Your task to perform on an android device: Find coffee shops on Maps Image 0: 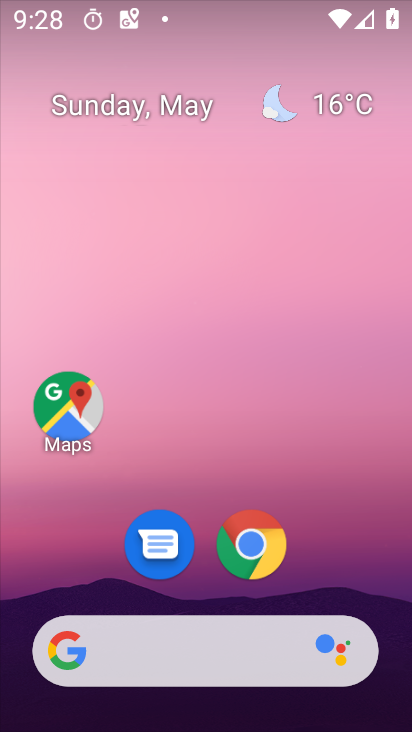
Step 0: click (67, 421)
Your task to perform on an android device: Find coffee shops on Maps Image 1: 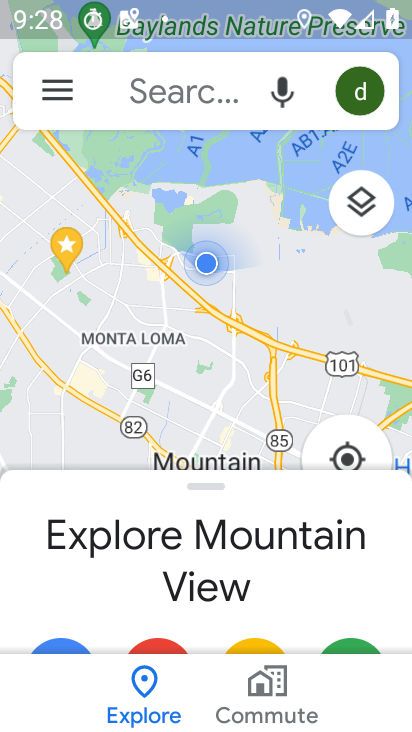
Step 1: click (176, 86)
Your task to perform on an android device: Find coffee shops on Maps Image 2: 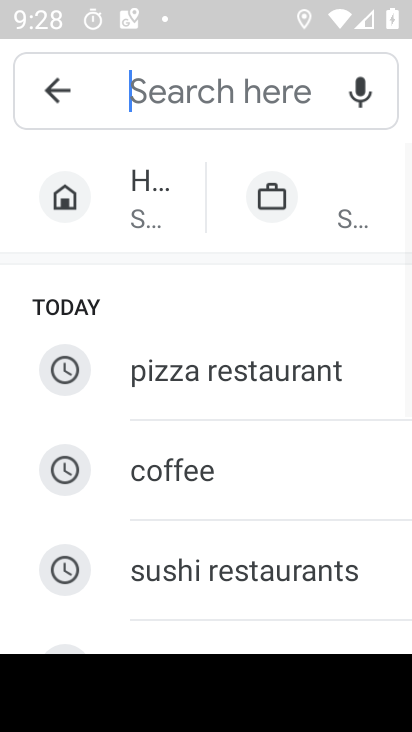
Step 2: drag from (223, 572) to (257, 302)
Your task to perform on an android device: Find coffee shops on Maps Image 3: 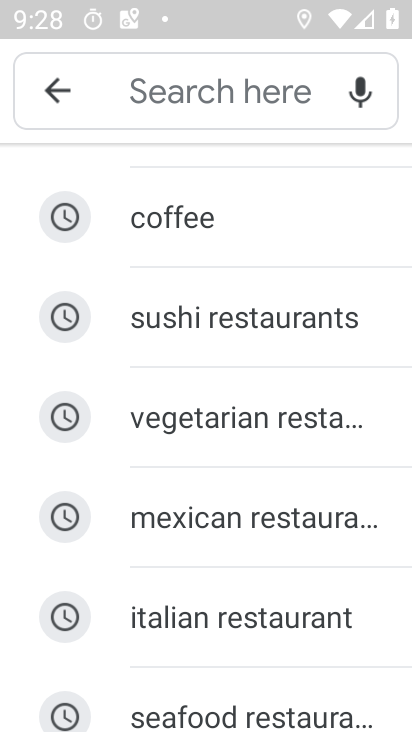
Step 3: drag from (227, 676) to (274, 369)
Your task to perform on an android device: Find coffee shops on Maps Image 4: 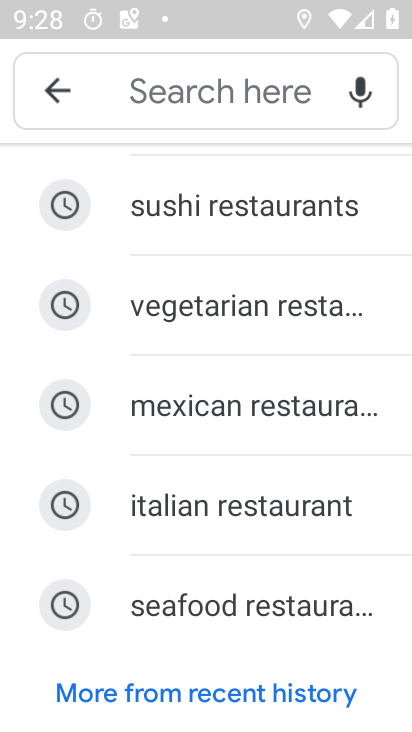
Step 4: click (194, 104)
Your task to perform on an android device: Find coffee shops on Maps Image 5: 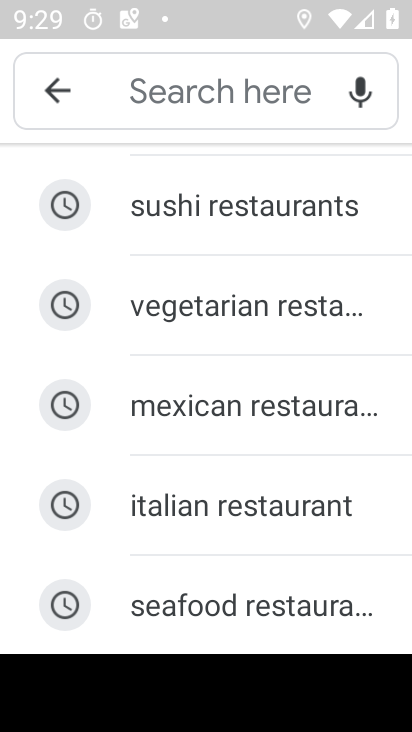
Step 5: type "coffee shops"
Your task to perform on an android device: Find coffee shops on Maps Image 6: 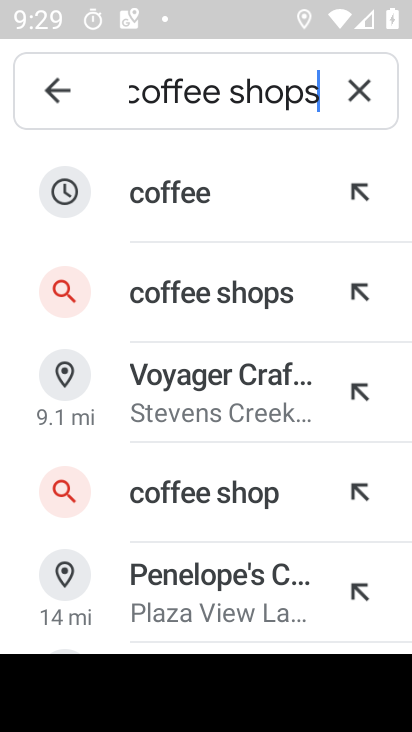
Step 6: click (204, 289)
Your task to perform on an android device: Find coffee shops on Maps Image 7: 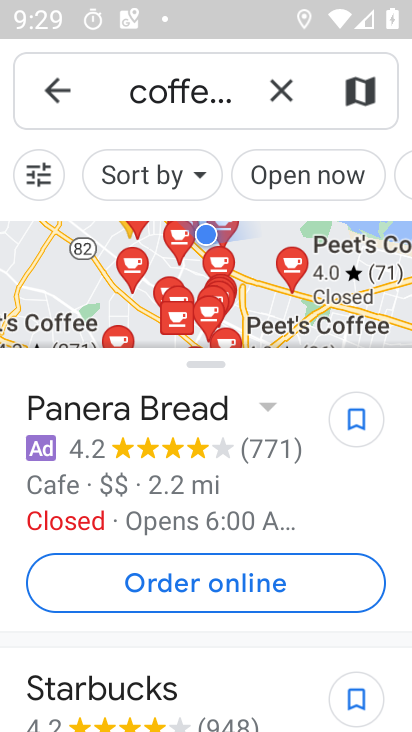
Step 7: task complete